Your task to perform on an android device: Open location settings Image 0: 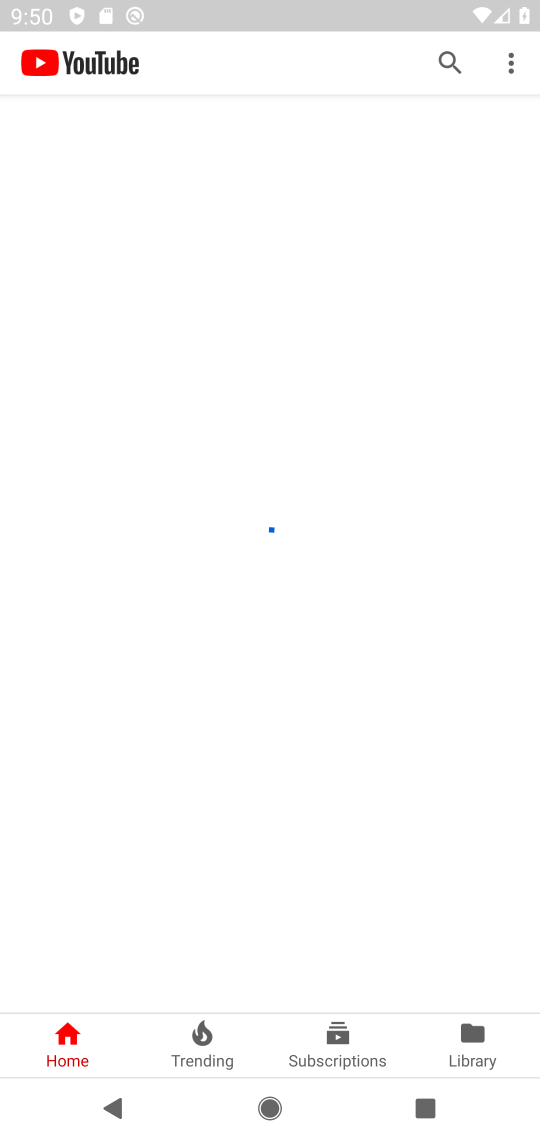
Step 0: press back button
Your task to perform on an android device: Open location settings Image 1: 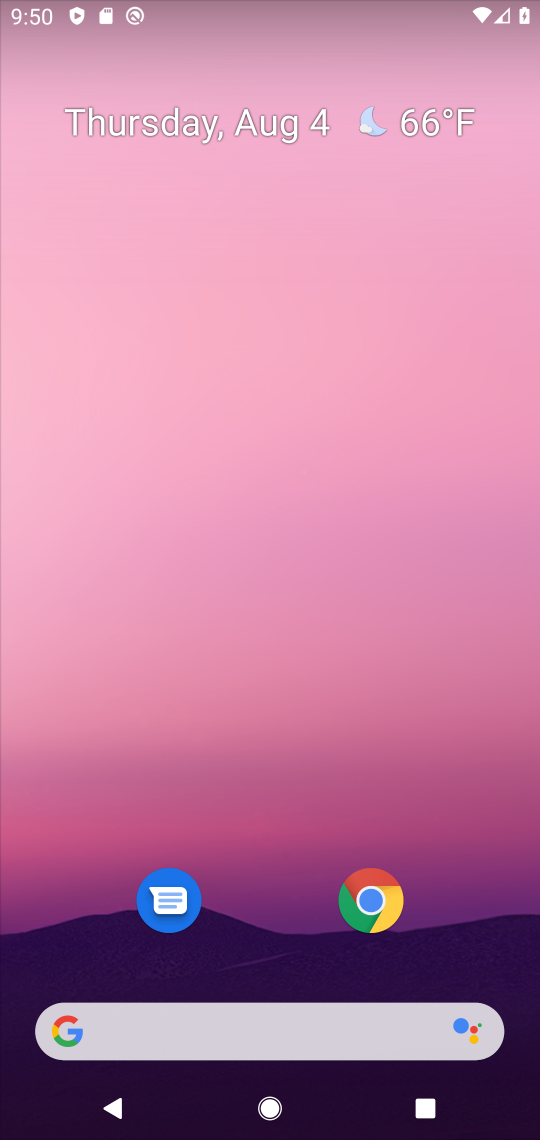
Step 1: drag from (456, 957) to (329, 120)
Your task to perform on an android device: Open location settings Image 2: 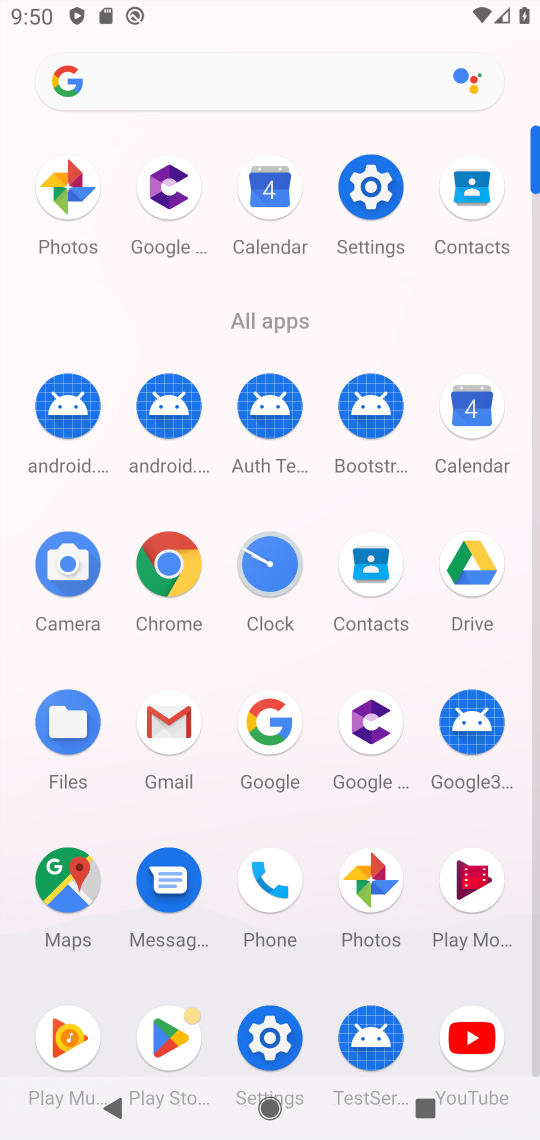
Step 2: click (386, 207)
Your task to perform on an android device: Open location settings Image 3: 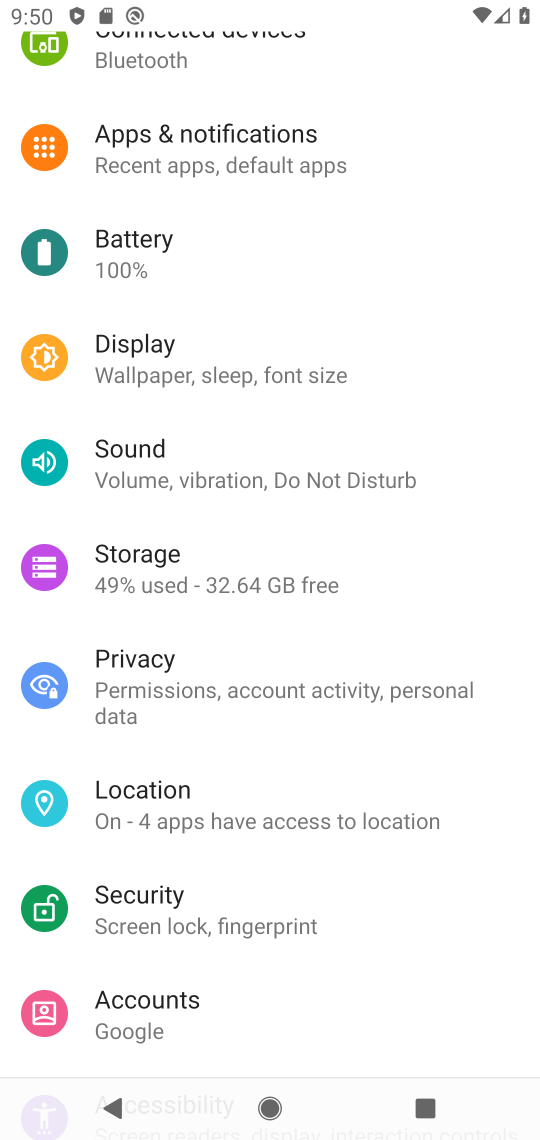
Step 3: click (391, 829)
Your task to perform on an android device: Open location settings Image 4: 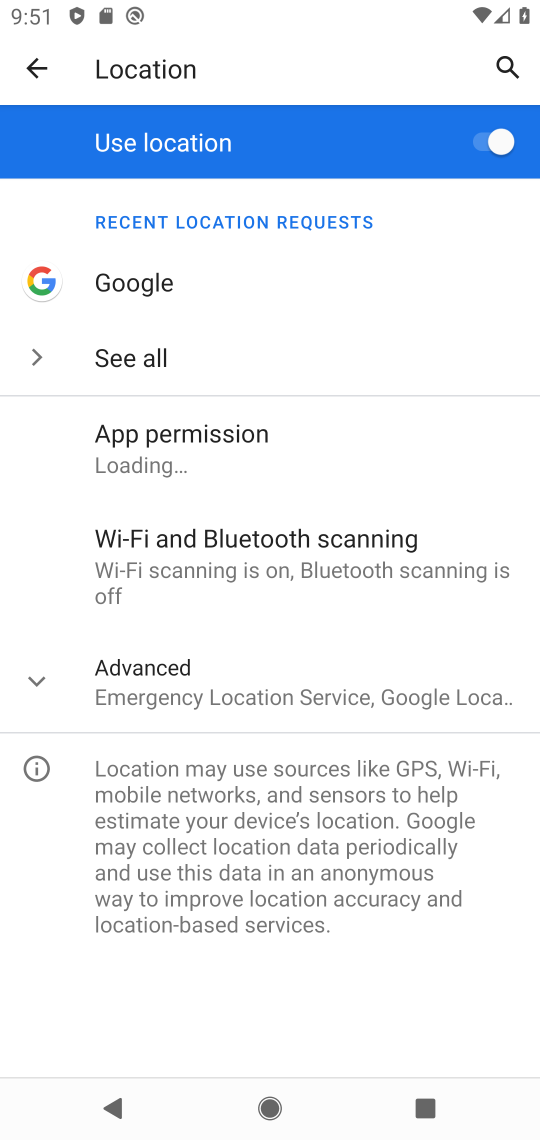
Step 4: task complete